Your task to perform on an android device: Open Google Chrome and click the shortcut for Amazon.com Image 0: 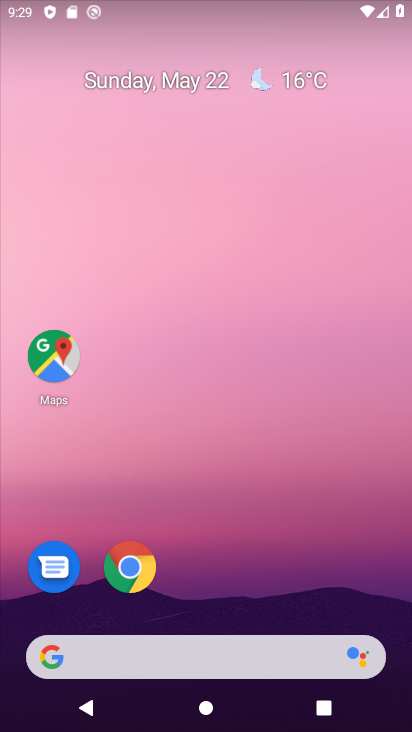
Step 0: click (128, 580)
Your task to perform on an android device: Open Google Chrome and click the shortcut for Amazon.com Image 1: 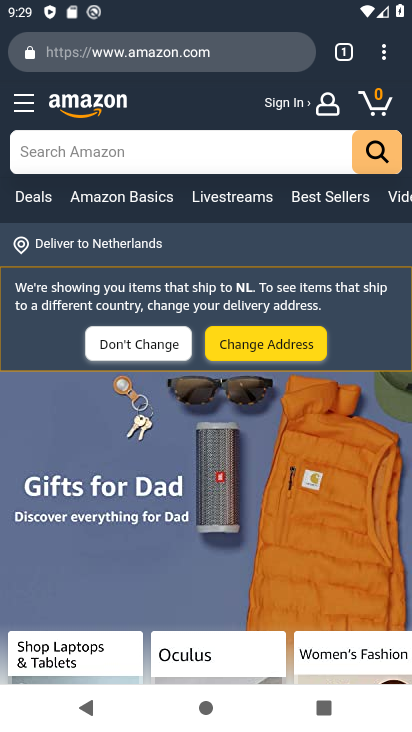
Step 1: task complete